Your task to perform on an android device: delete browsing data in the chrome app Image 0: 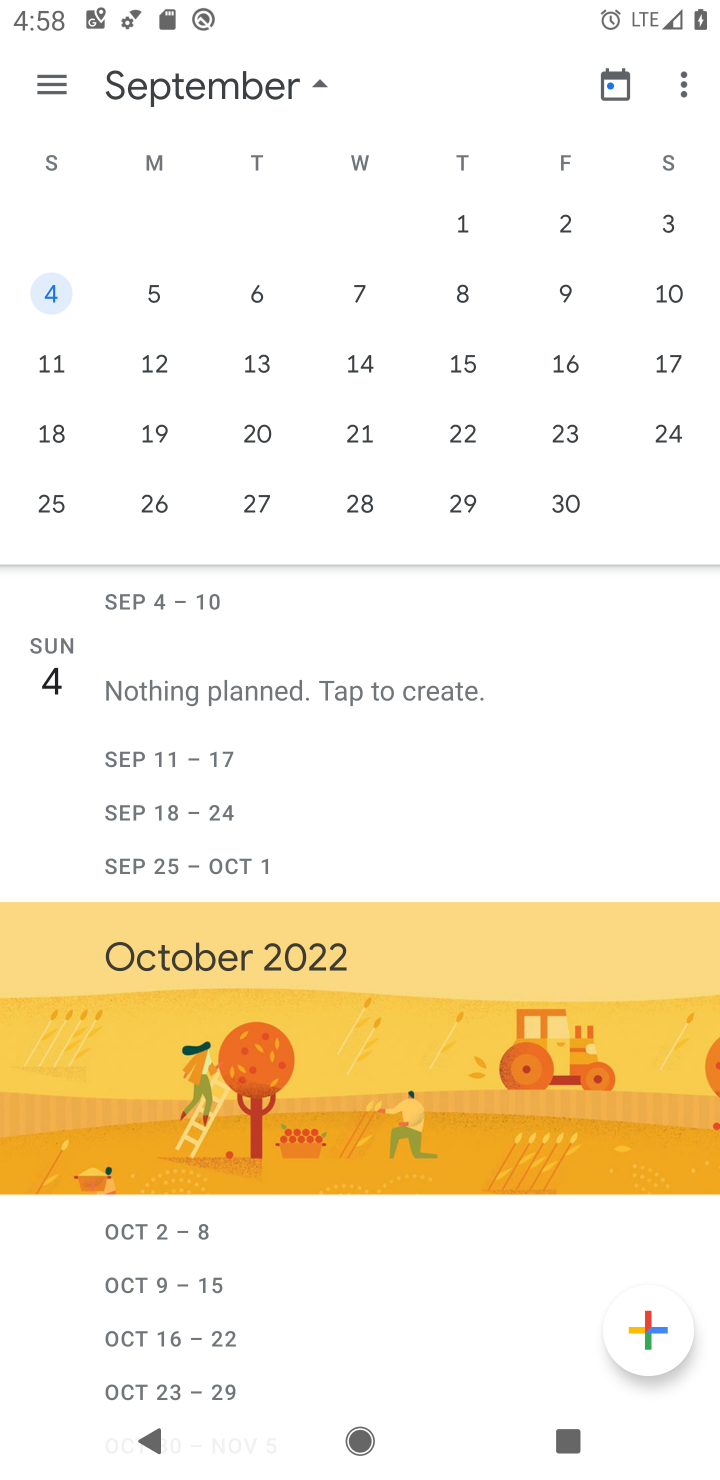
Step 0: press home button
Your task to perform on an android device: delete browsing data in the chrome app Image 1: 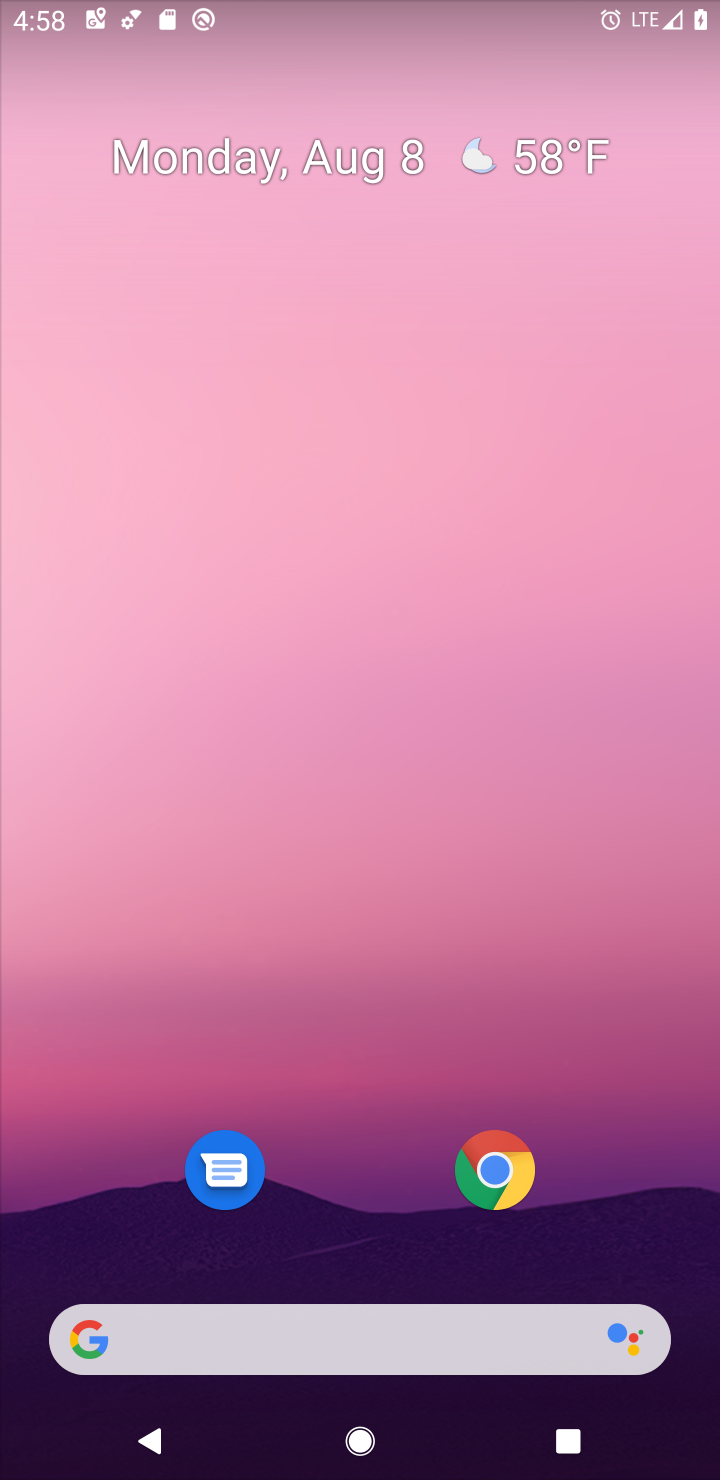
Step 1: click (527, 1180)
Your task to perform on an android device: delete browsing data in the chrome app Image 2: 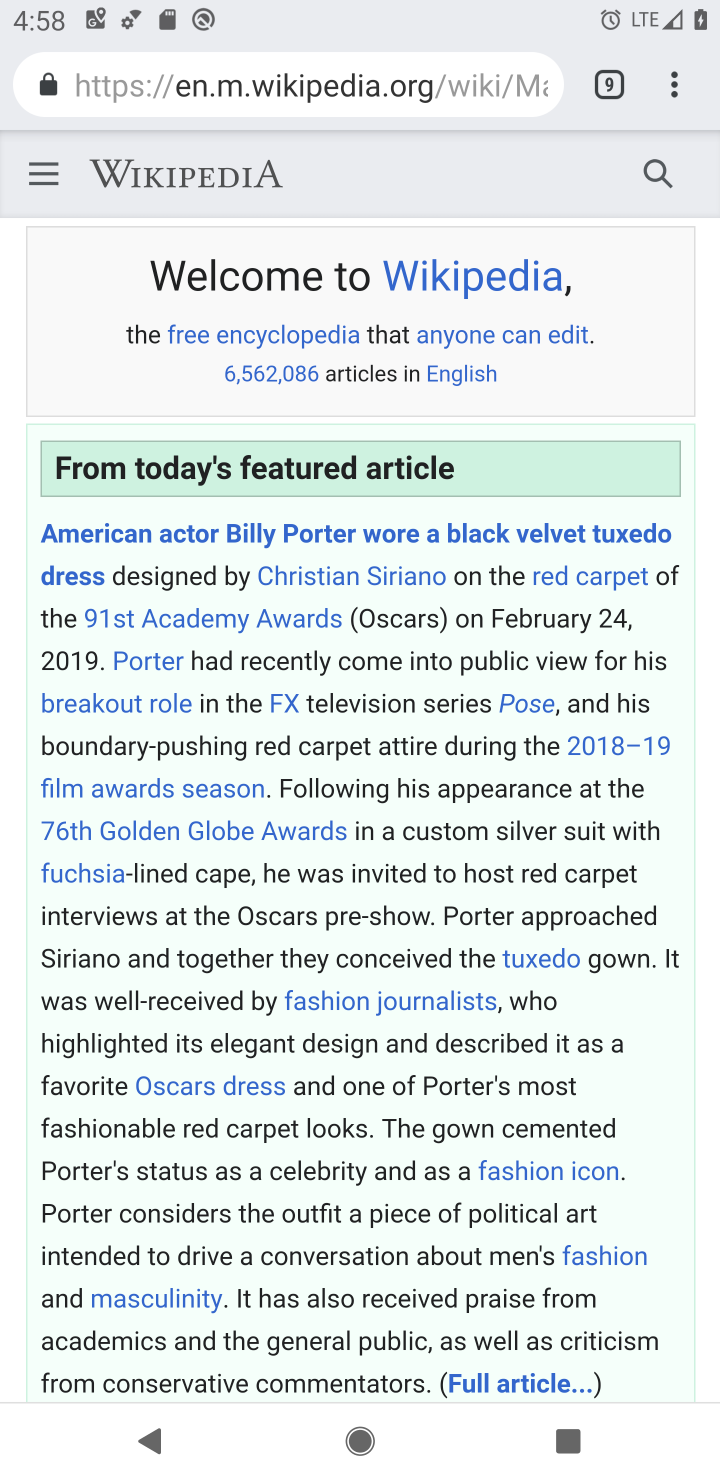
Step 2: click (676, 90)
Your task to perform on an android device: delete browsing data in the chrome app Image 3: 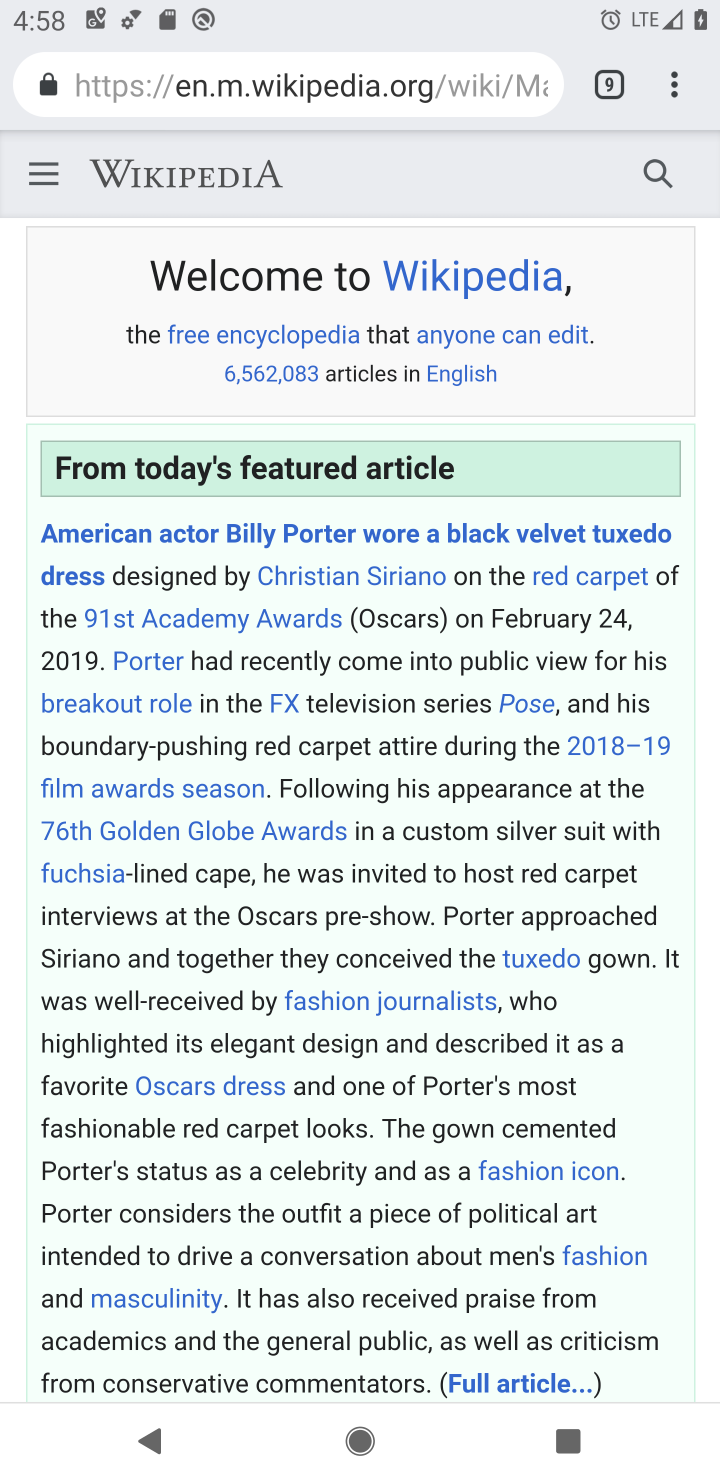
Step 3: drag from (676, 90) to (457, 453)
Your task to perform on an android device: delete browsing data in the chrome app Image 4: 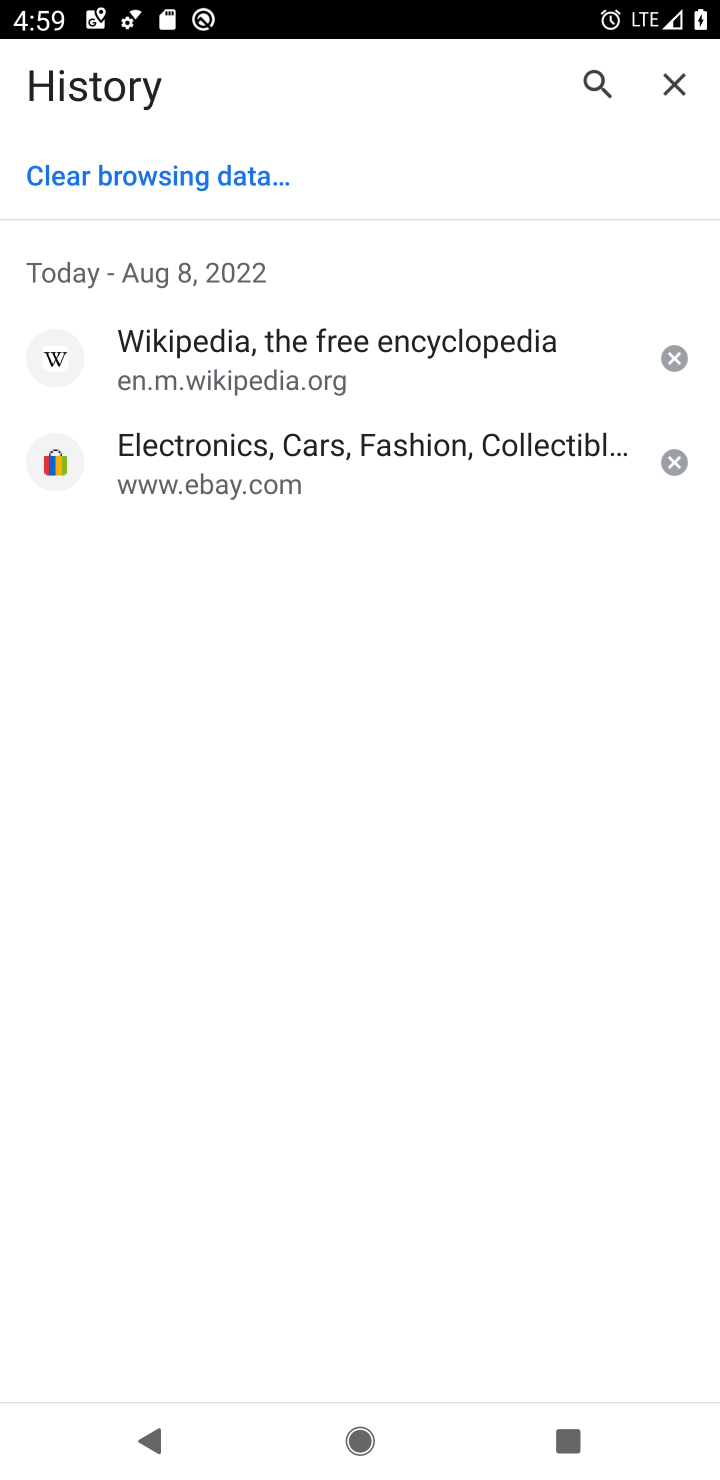
Step 4: click (165, 170)
Your task to perform on an android device: delete browsing data in the chrome app Image 5: 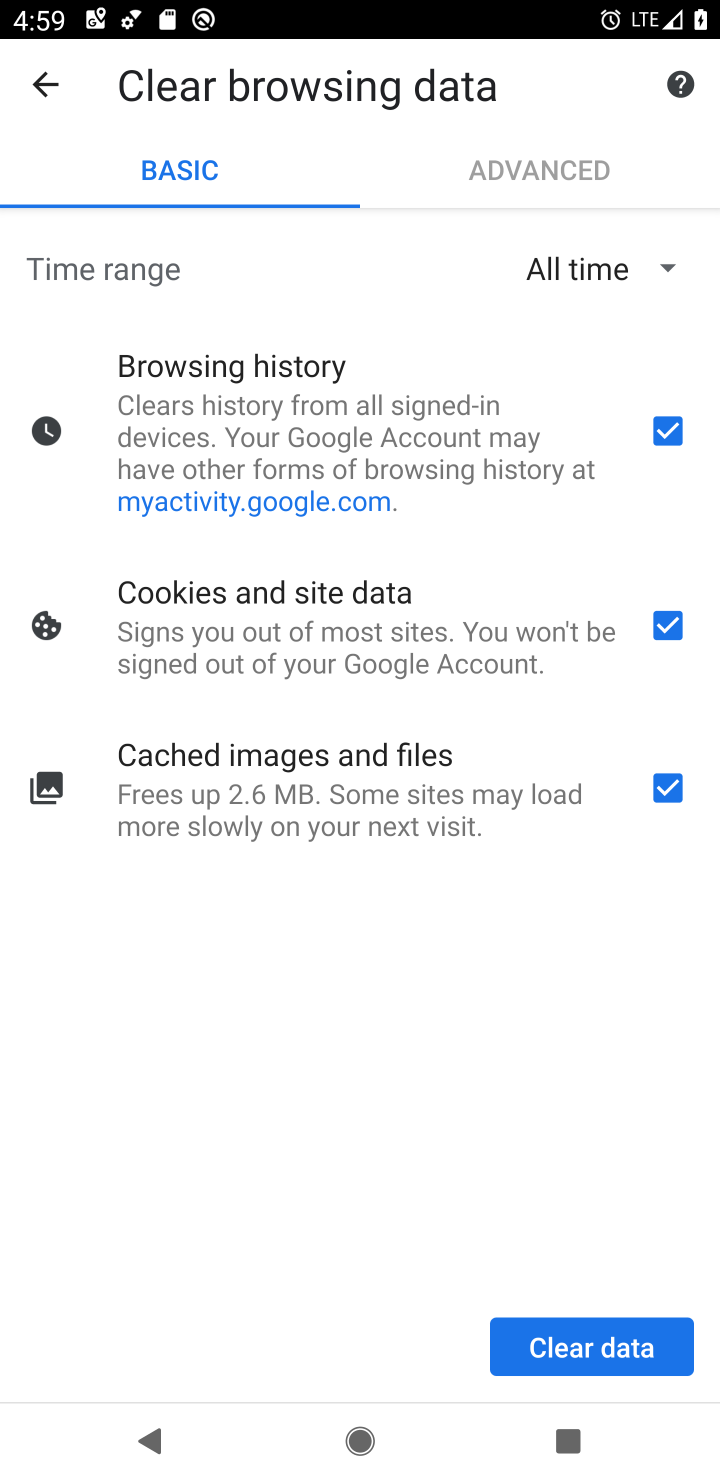
Step 5: click (547, 1351)
Your task to perform on an android device: delete browsing data in the chrome app Image 6: 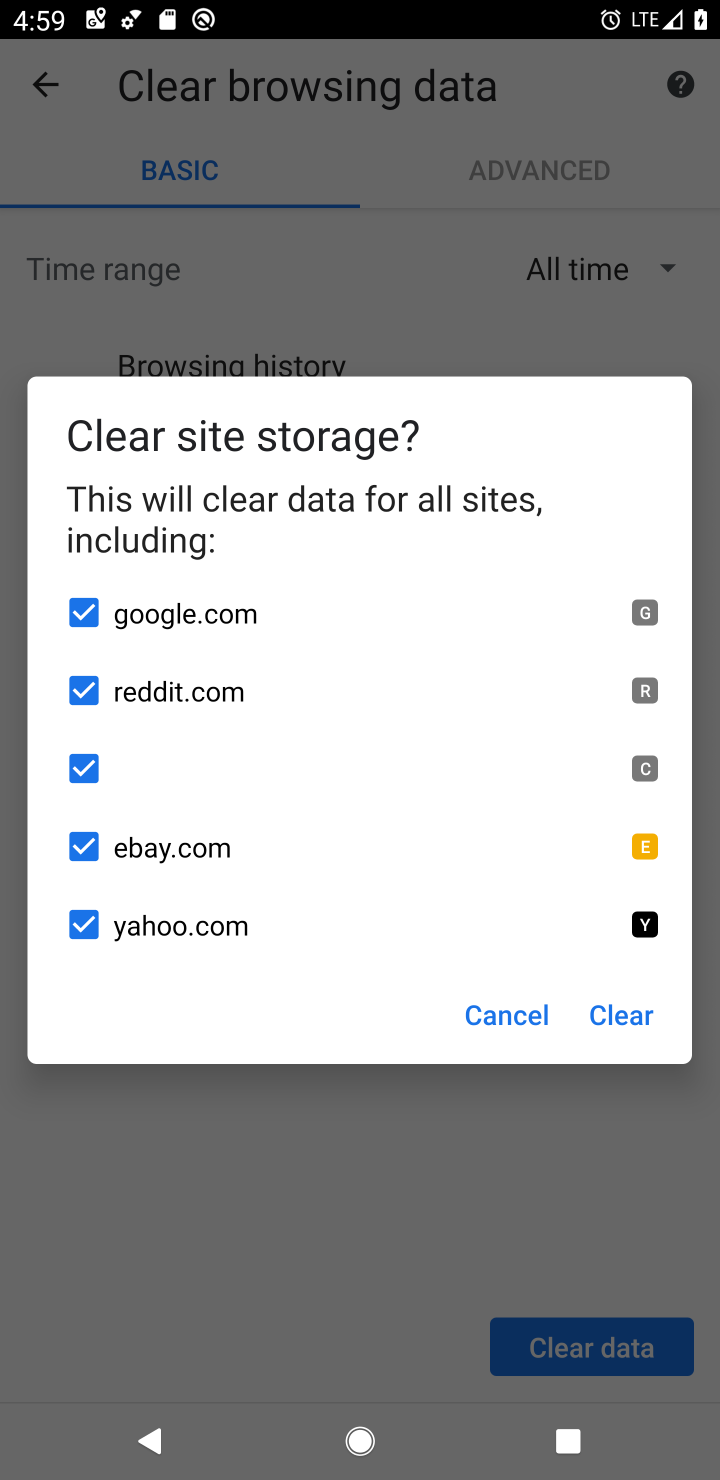
Step 6: click (635, 1024)
Your task to perform on an android device: delete browsing data in the chrome app Image 7: 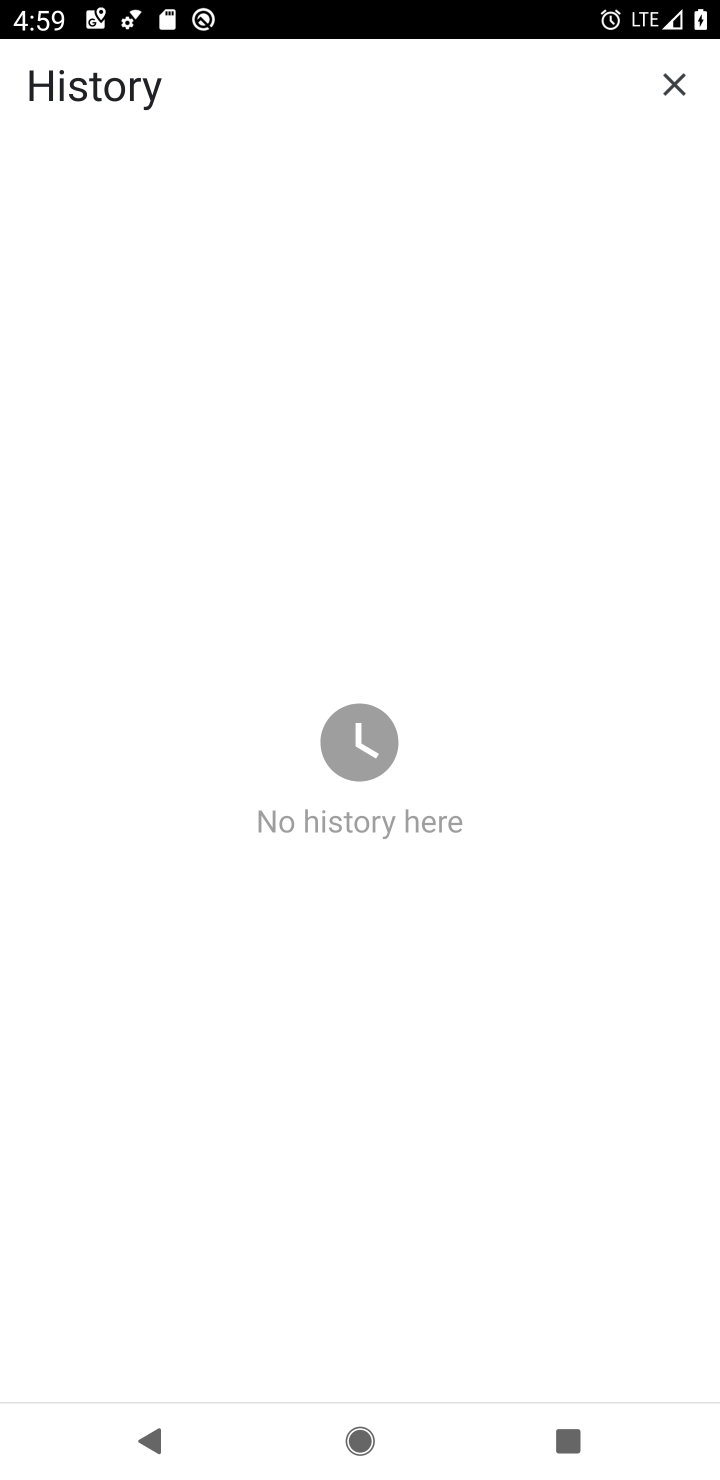
Step 7: task complete